Your task to perform on an android device: Search for the best selling book on Amazon. Image 0: 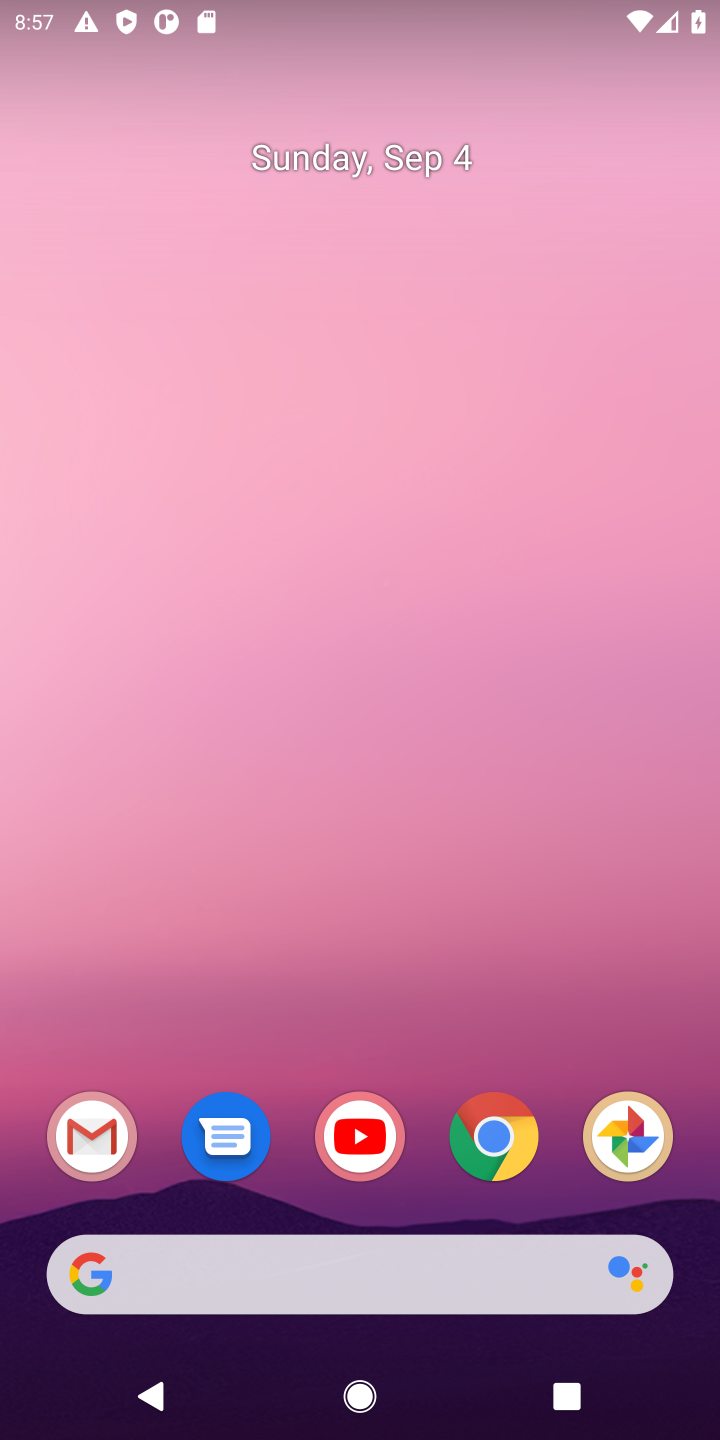
Step 0: drag from (356, 425) to (379, 71)
Your task to perform on an android device: Search for the best selling book on Amazon. Image 1: 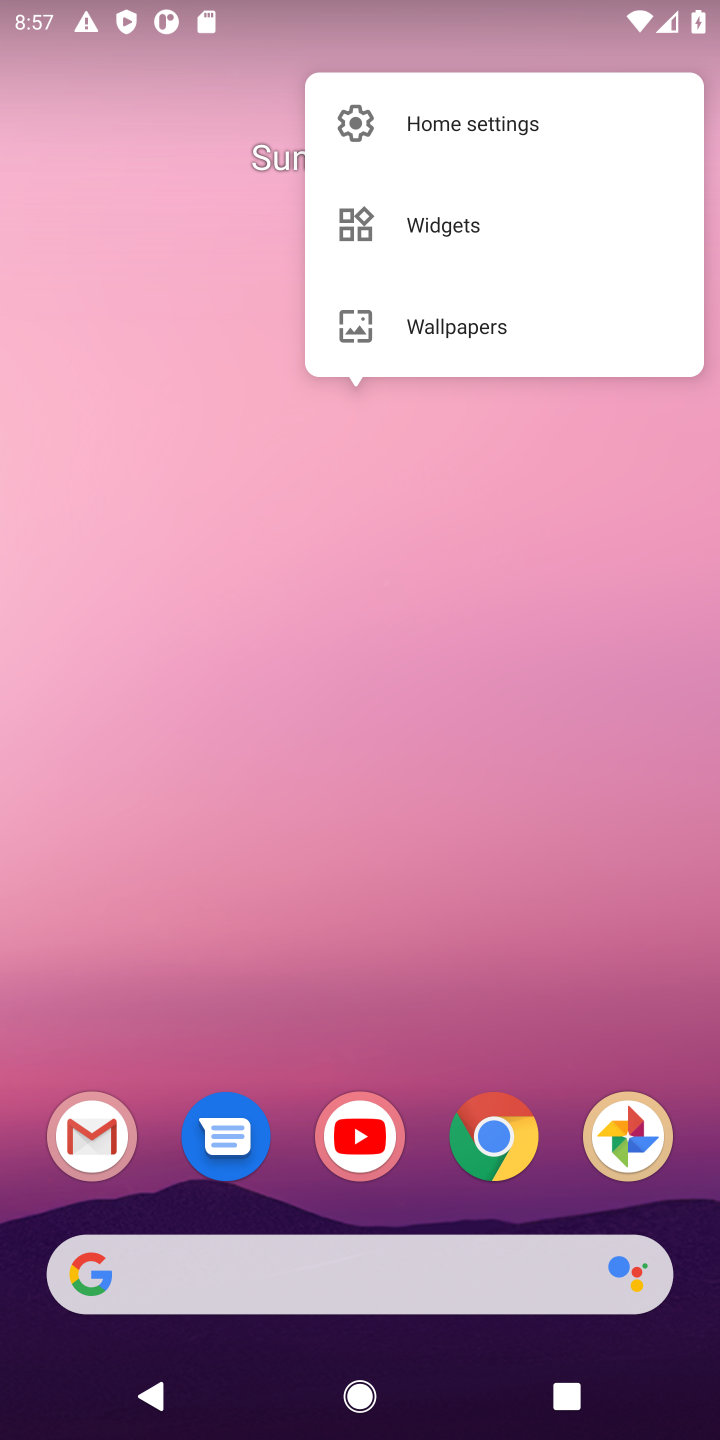
Step 1: click (299, 1193)
Your task to perform on an android device: Search for the best selling book on Amazon. Image 2: 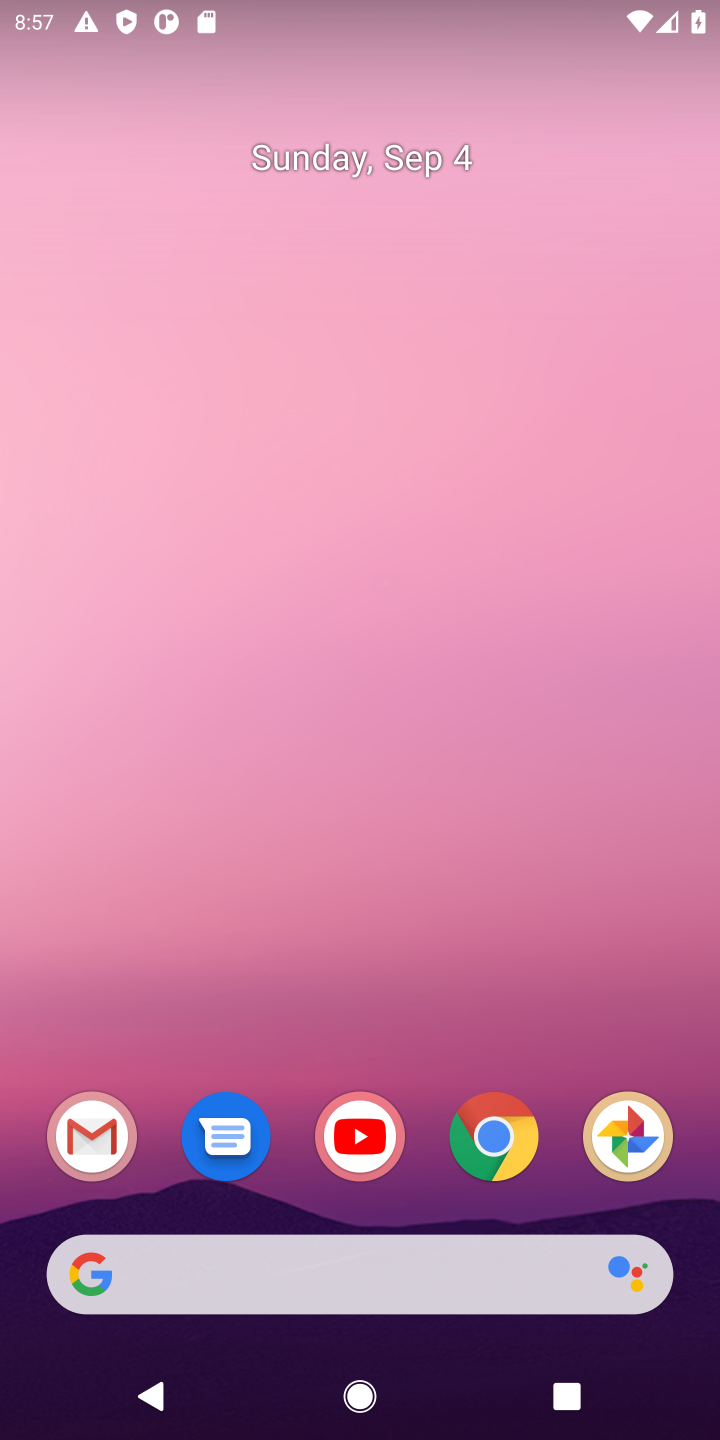
Step 2: drag from (302, 10) to (222, 1)
Your task to perform on an android device: Search for the best selling book on Amazon. Image 3: 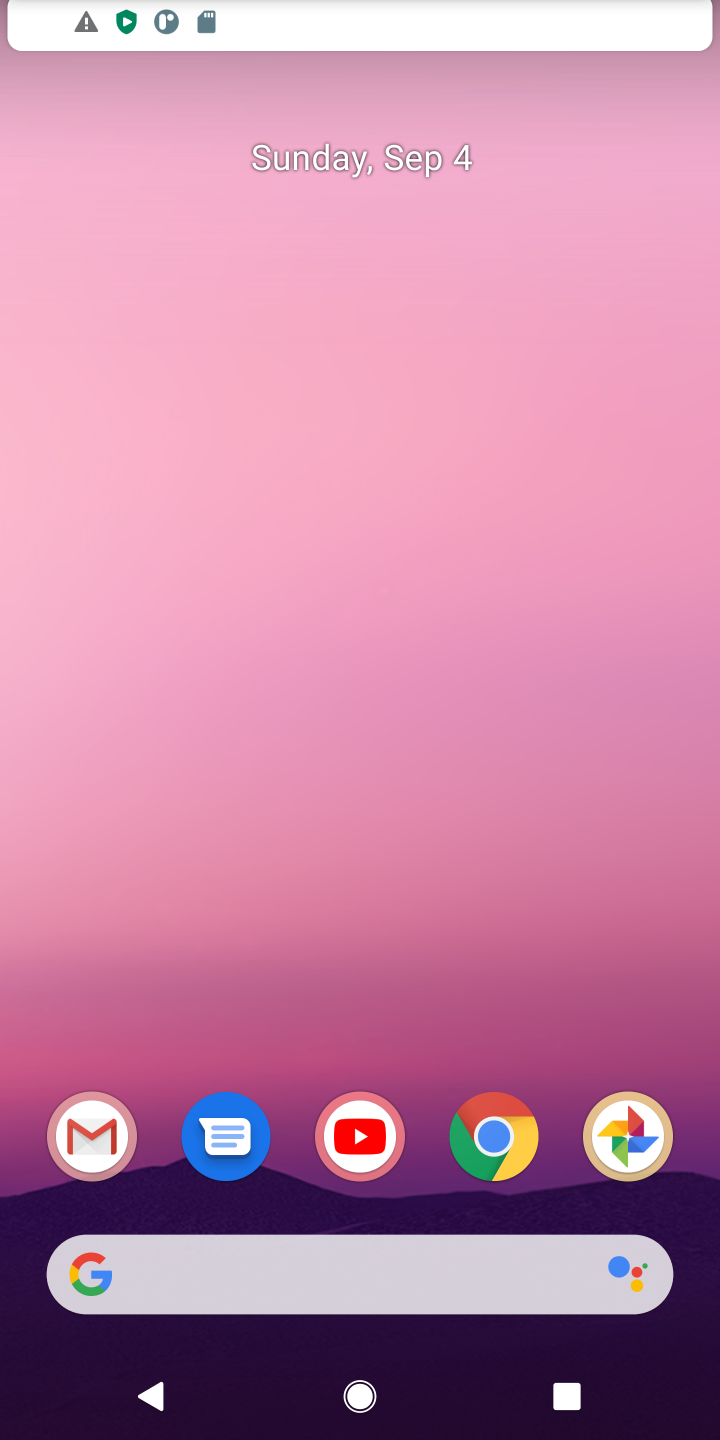
Step 3: drag from (398, 0) to (397, 75)
Your task to perform on an android device: Search for the best selling book on Amazon. Image 4: 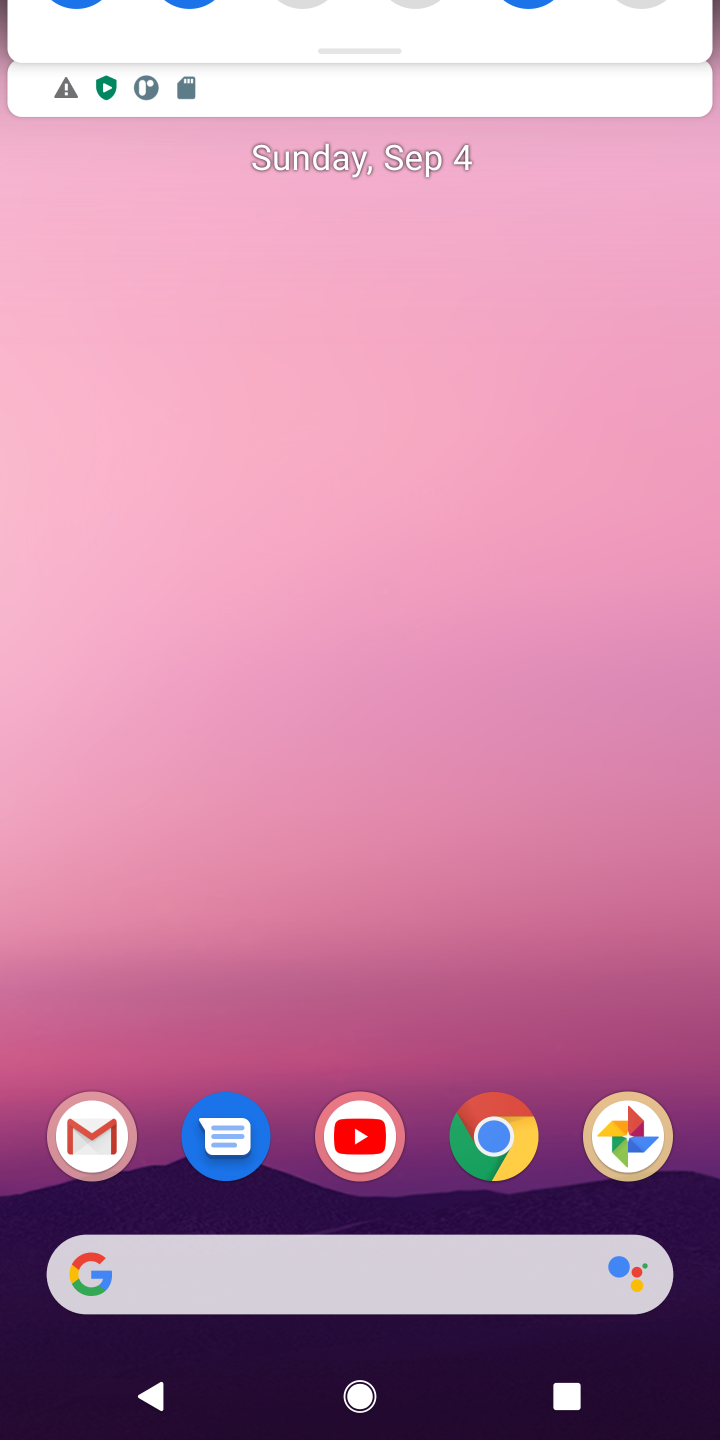
Step 4: click (345, 161)
Your task to perform on an android device: Search for the best selling book on Amazon. Image 5: 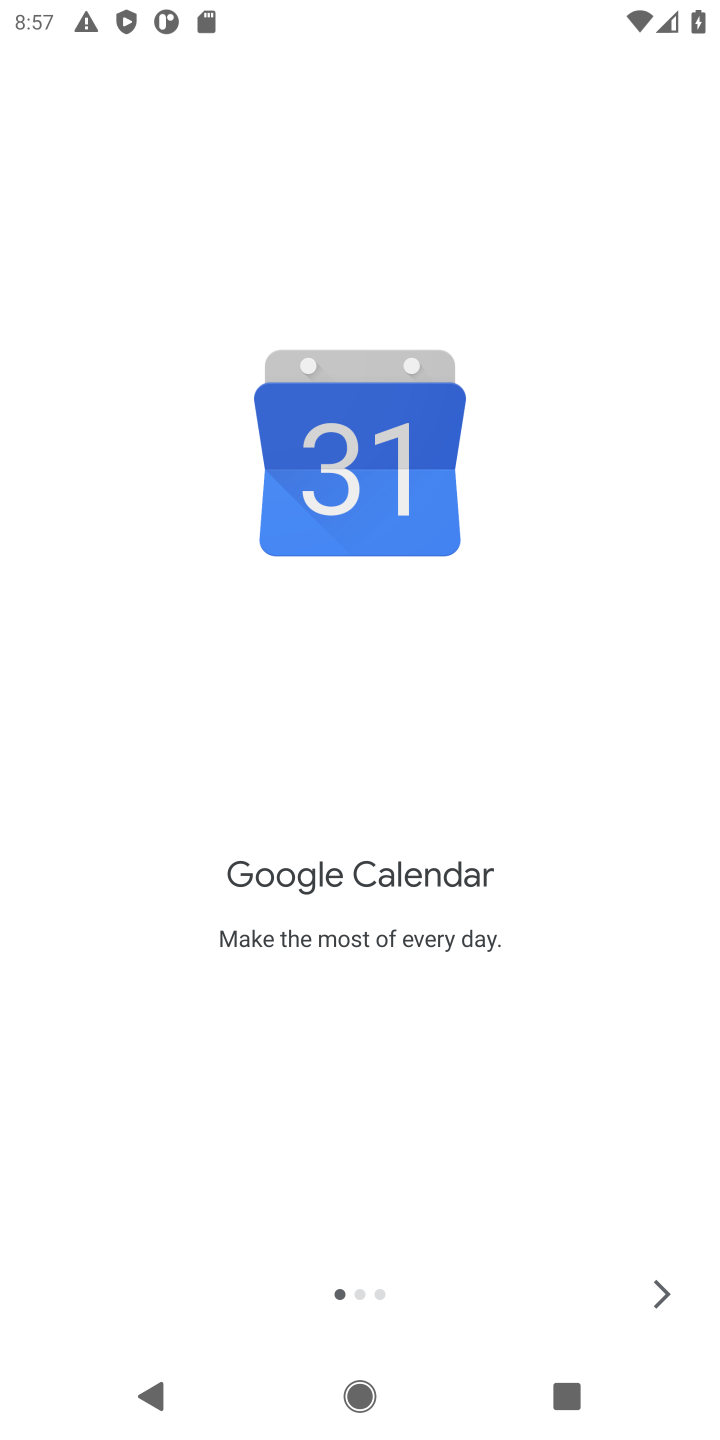
Step 5: drag from (425, 1150) to (459, 1092)
Your task to perform on an android device: Search for the best selling book on Amazon. Image 6: 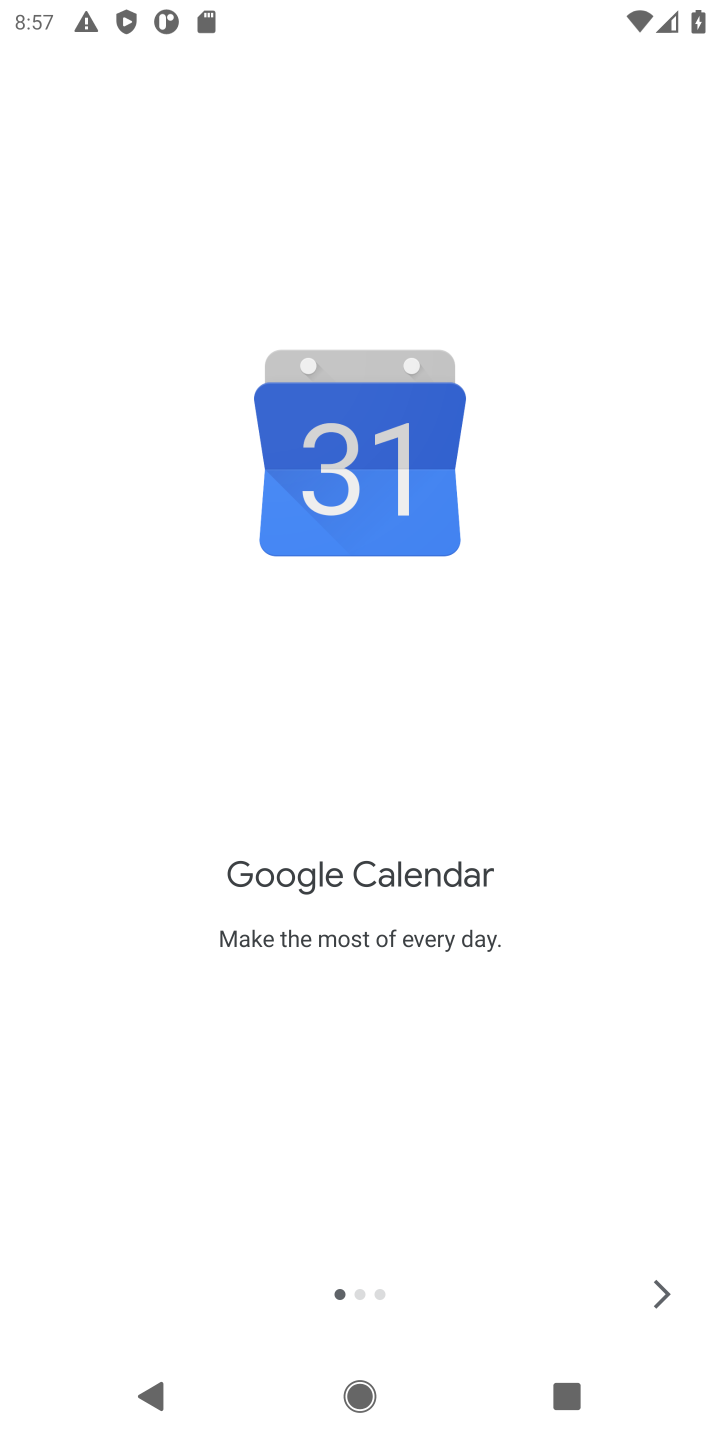
Step 6: press home button
Your task to perform on an android device: Search for the best selling book on Amazon. Image 7: 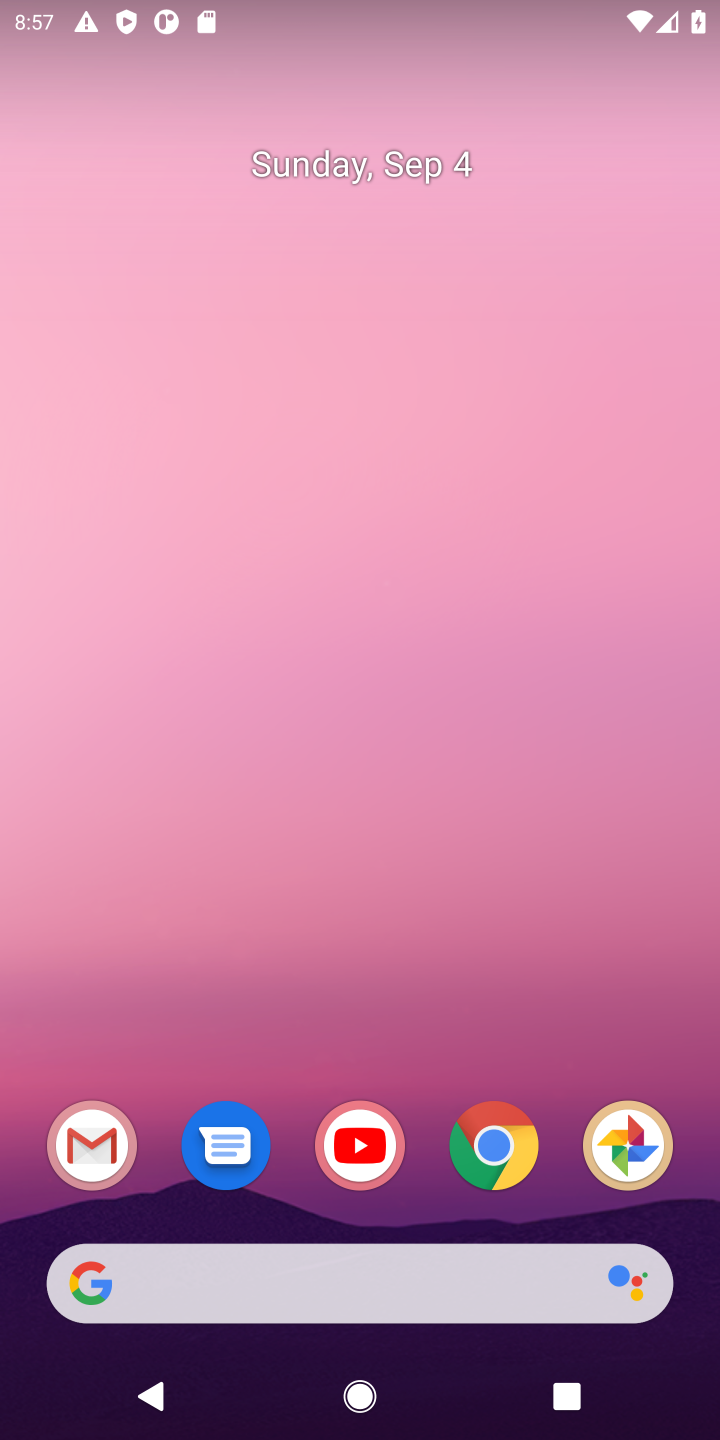
Step 7: drag from (459, 1092) to (648, 1109)
Your task to perform on an android device: Search for the best selling book on Amazon. Image 8: 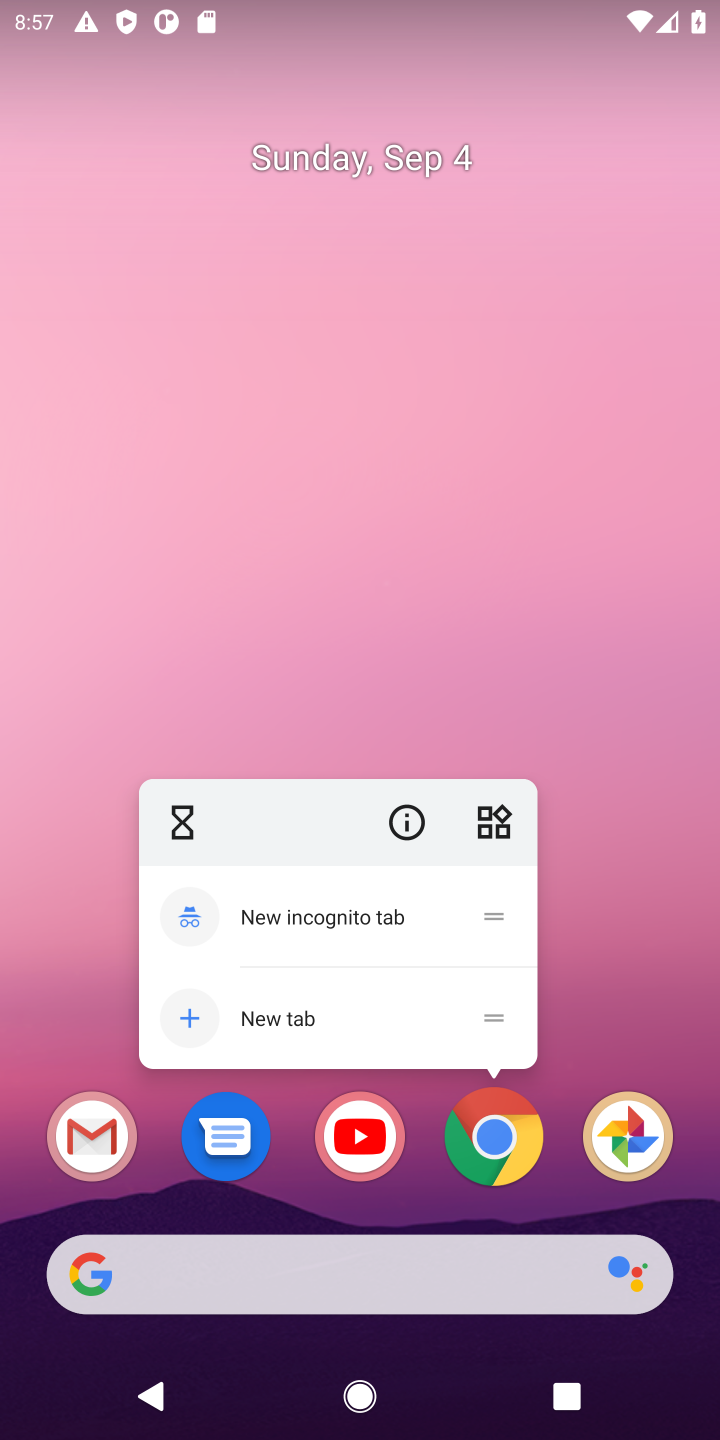
Step 8: click (400, 1214)
Your task to perform on an android device: Search for the best selling book on Amazon. Image 9: 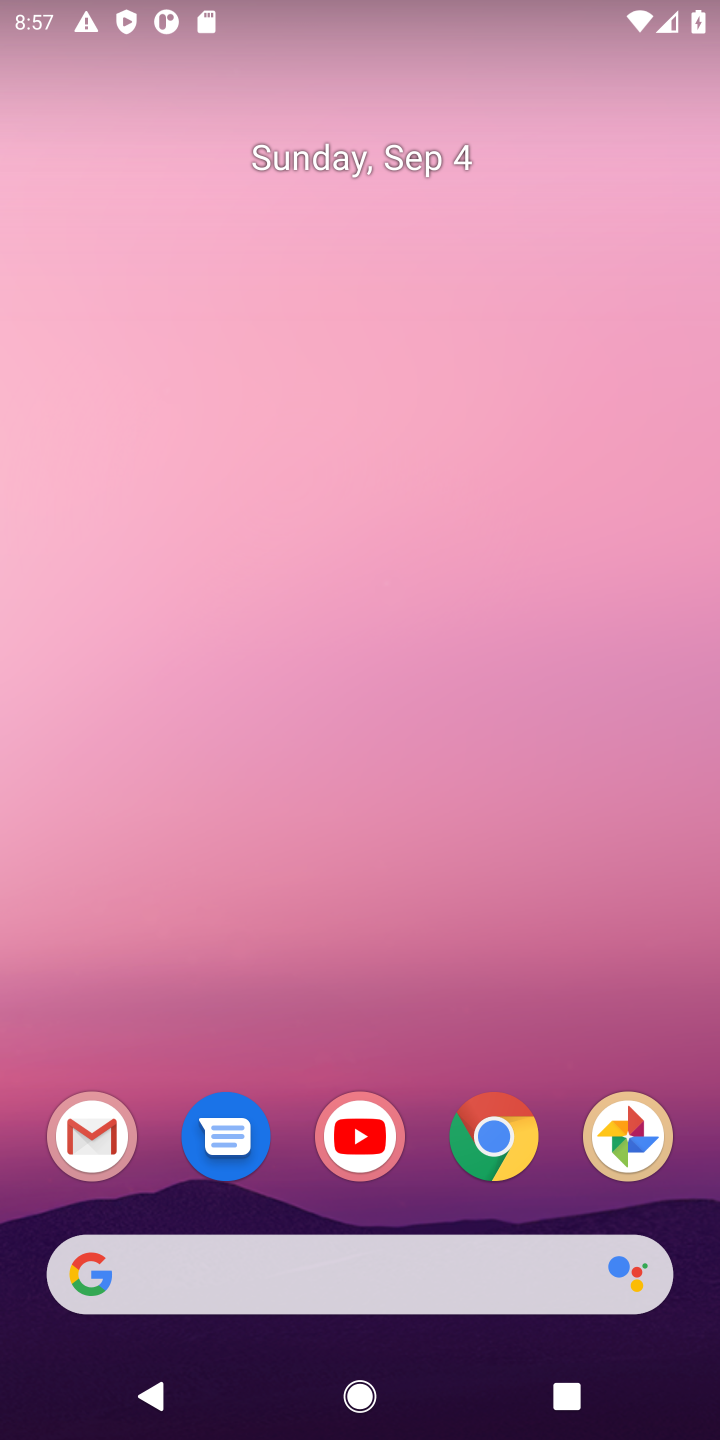
Step 9: click (341, 312)
Your task to perform on an android device: Search for the best selling book on Amazon. Image 10: 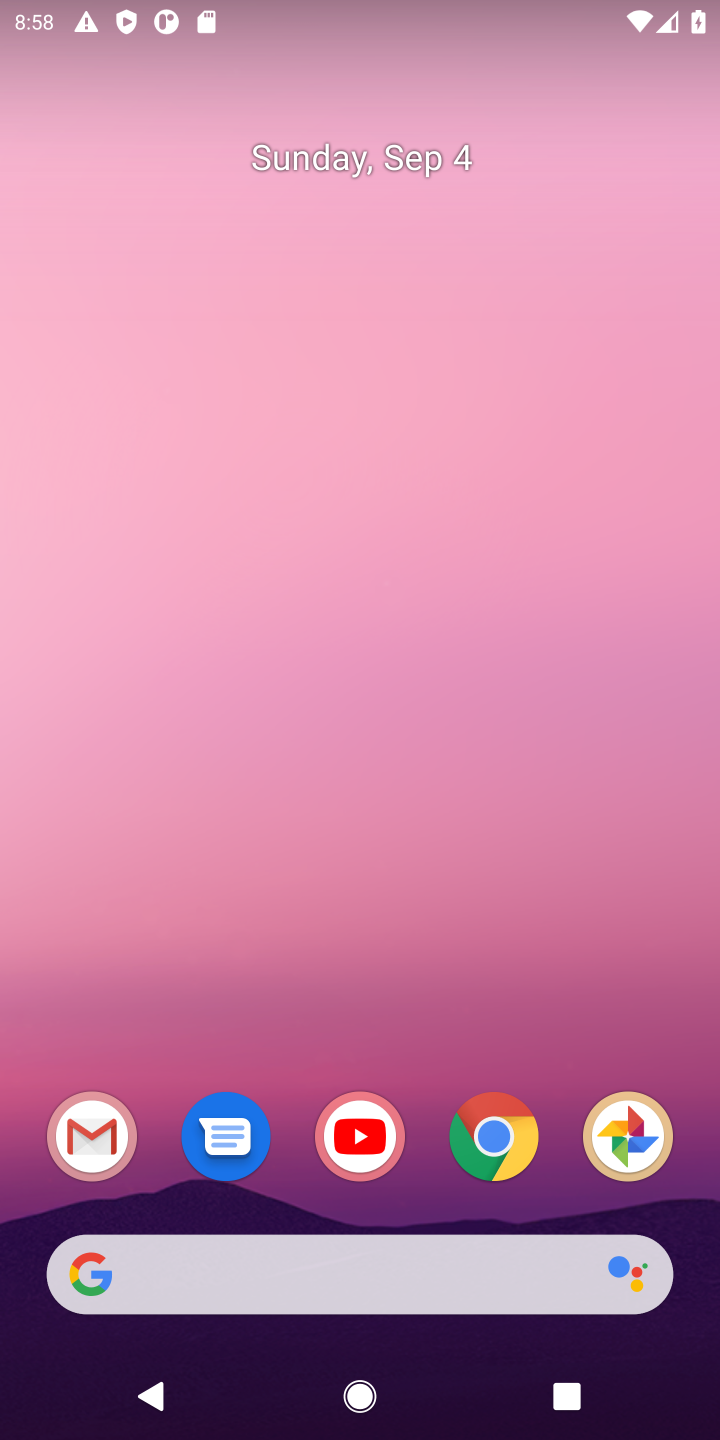
Step 10: click (454, 431)
Your task to perform on an android device: Search for the best selling book on Amazon. Image 11: 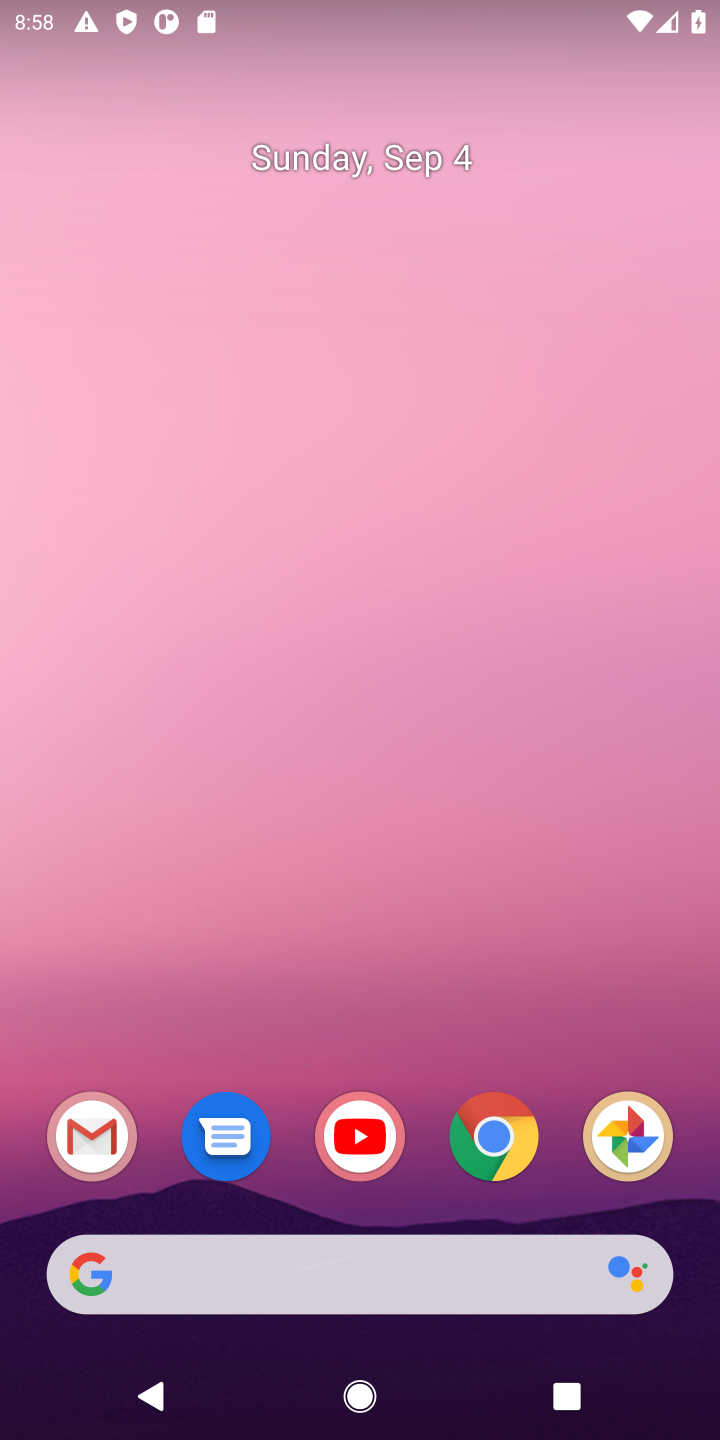
Step 11: click (516, 272)
Your task to perform on an android device: Search for the best selling book on Amazon. Image 12: 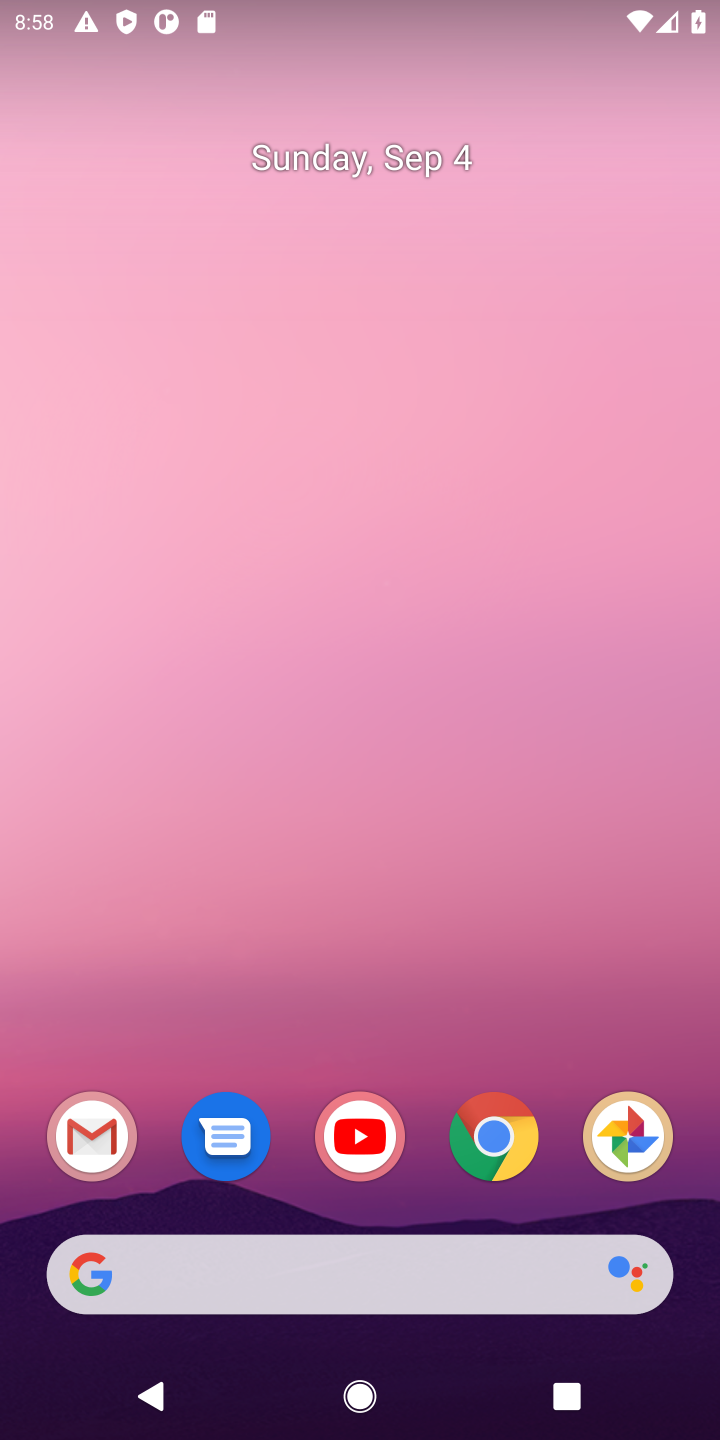
Step 12: click (280, 174)
Your task to perform on an android device: Search for the best selling book on Amazon. Image 13: 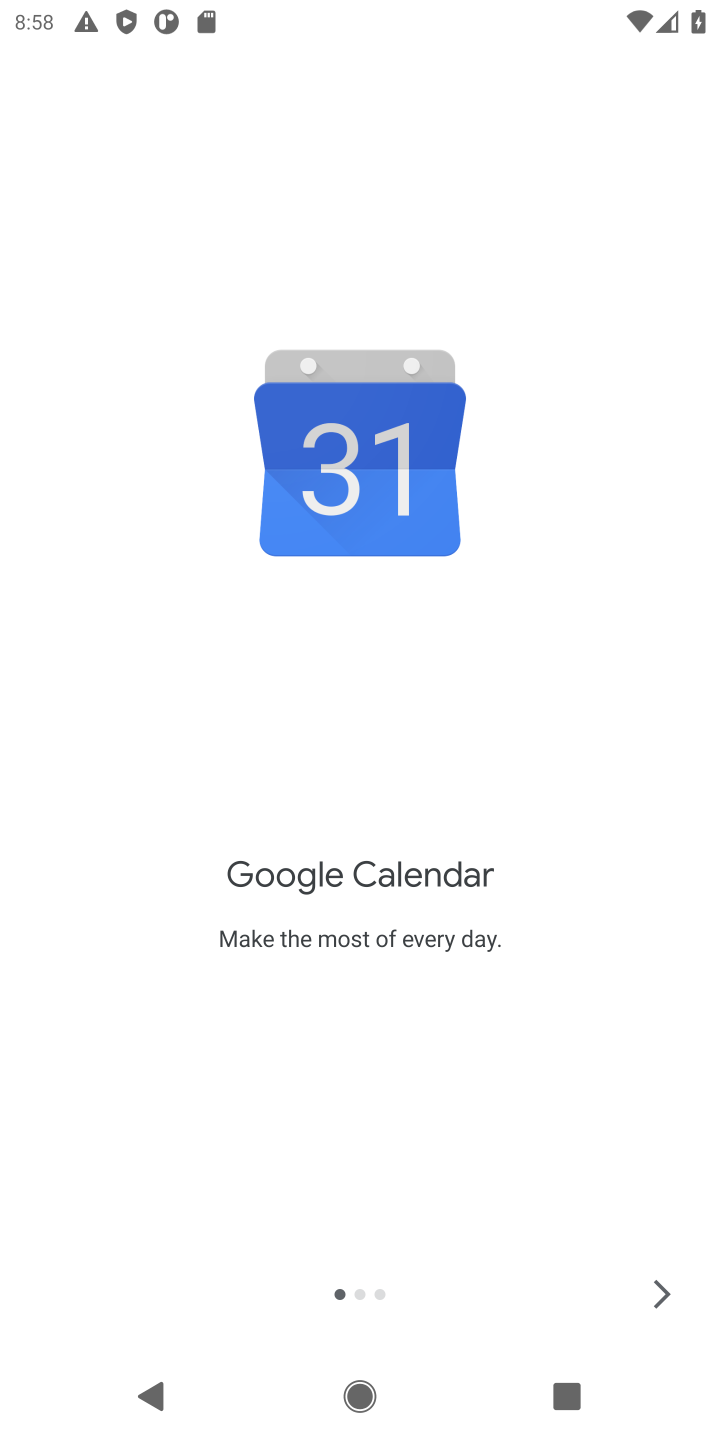
Step 13: press home button
Your task to perform on an android device: Search for the best selling book on Amazon. Image 14: 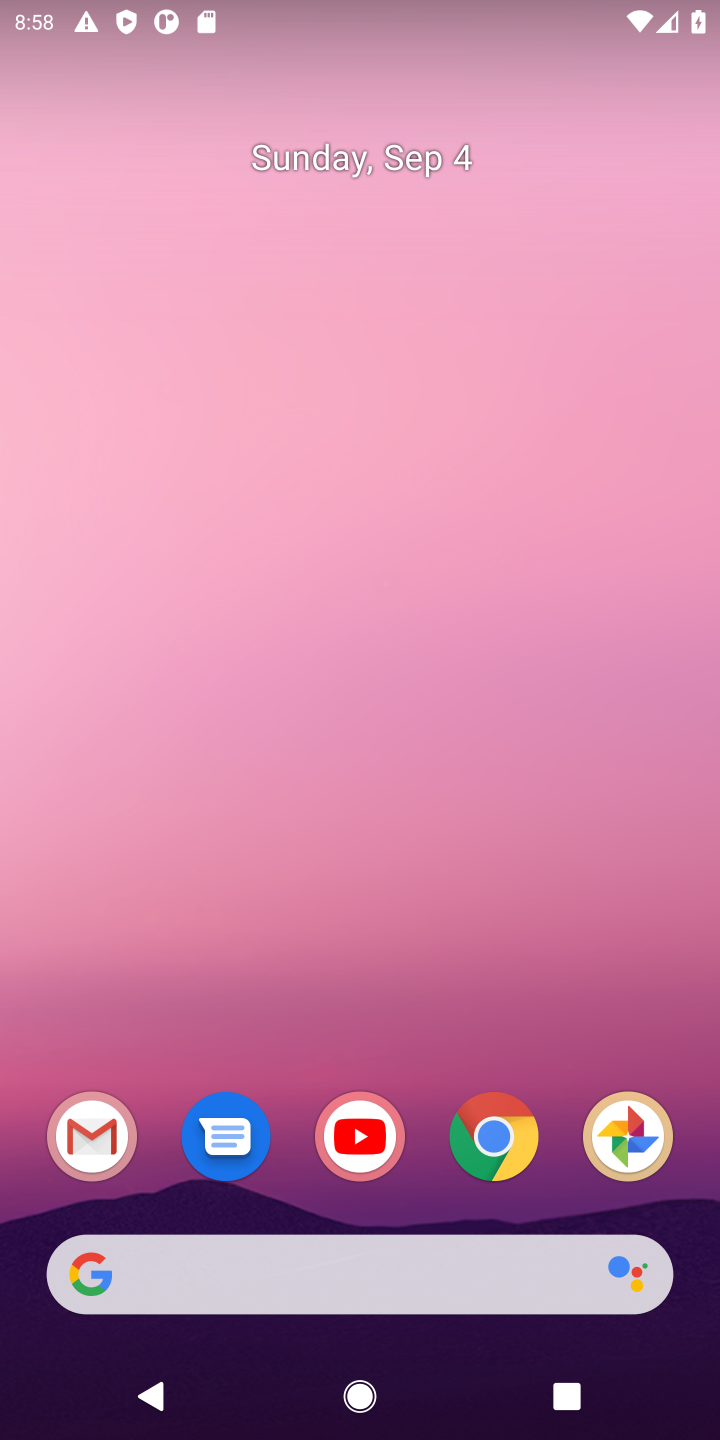
Step 14: click (350, 500)
Your task to perform on an android device: Search for the best selling book on Amazon. Image 15: 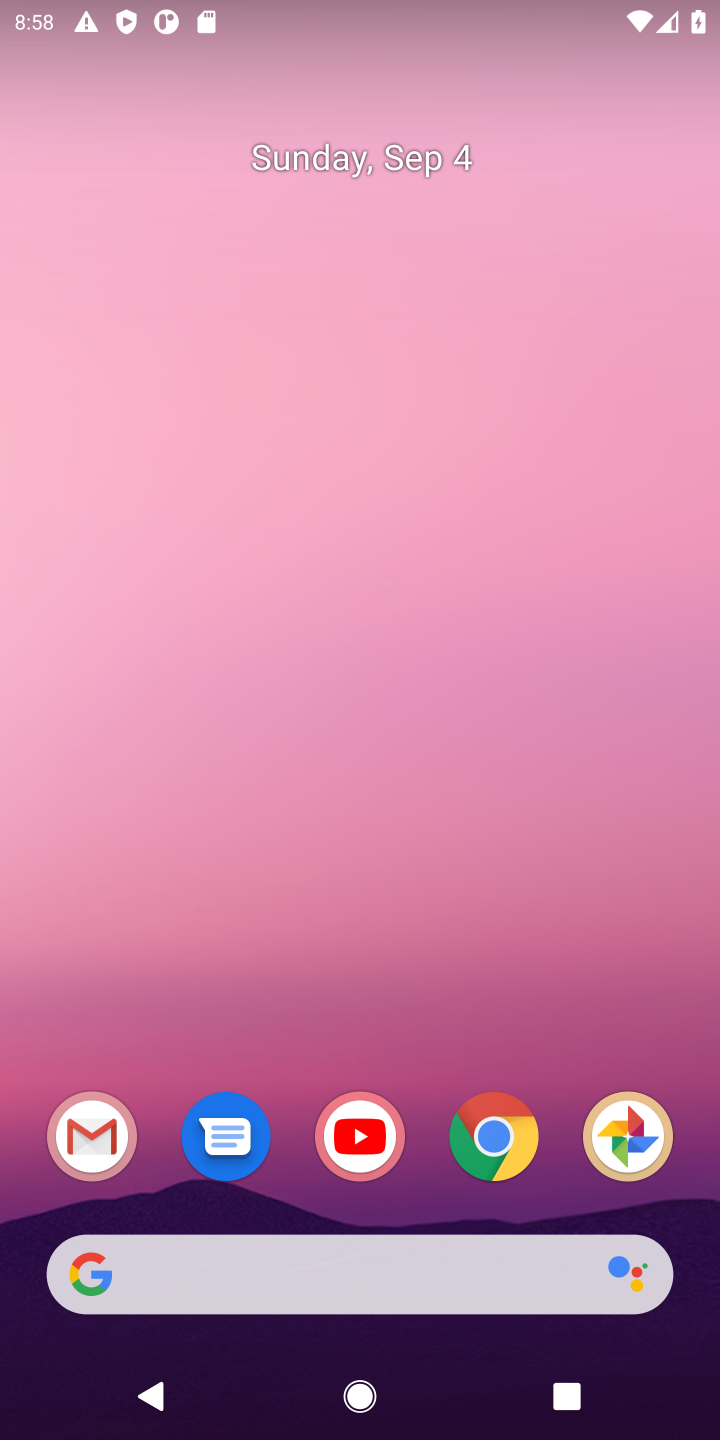
Step 15: click (270, 1276)
Your task to perform on an android device: Search for the best selling book on Amazon. Image 16: 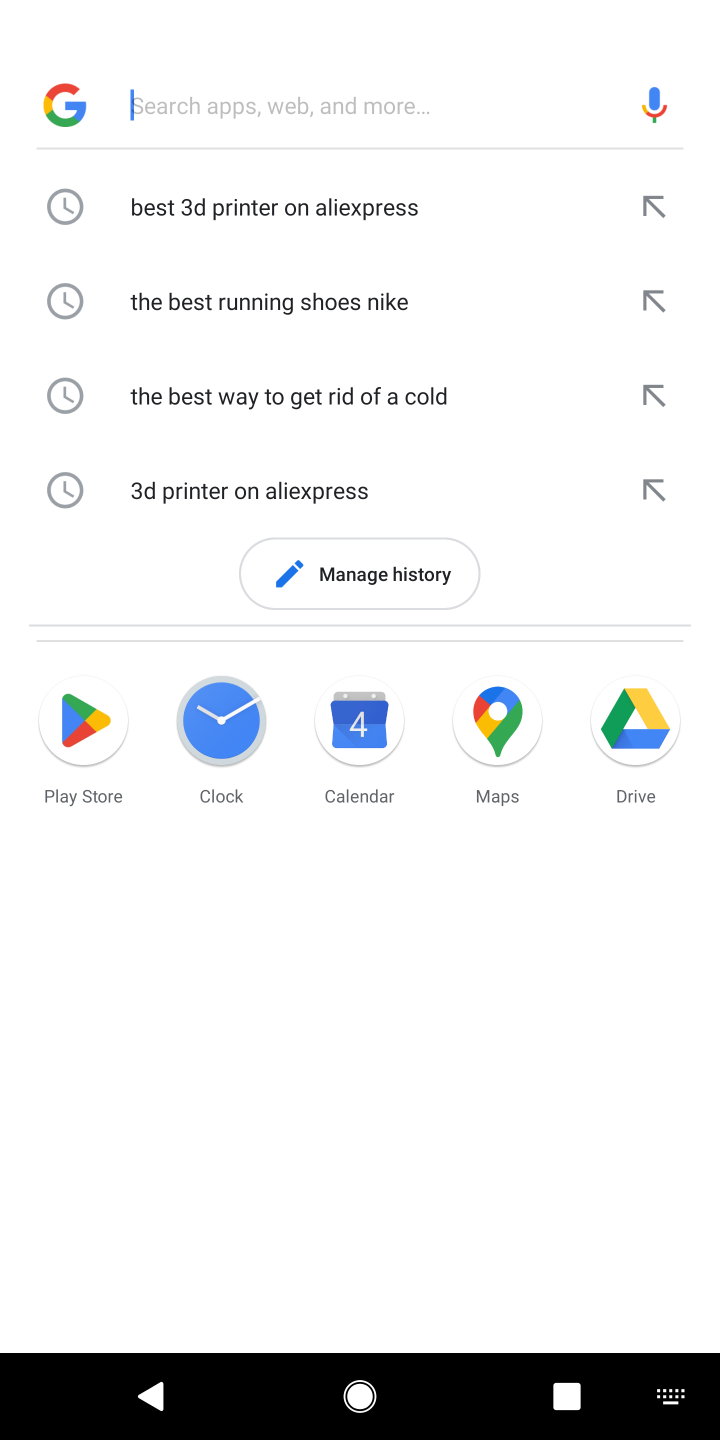
Step 16: type "the best selling book on Amazon"
Your task to perform on an android device: Search for the best selling book on Amazon. Image 17: 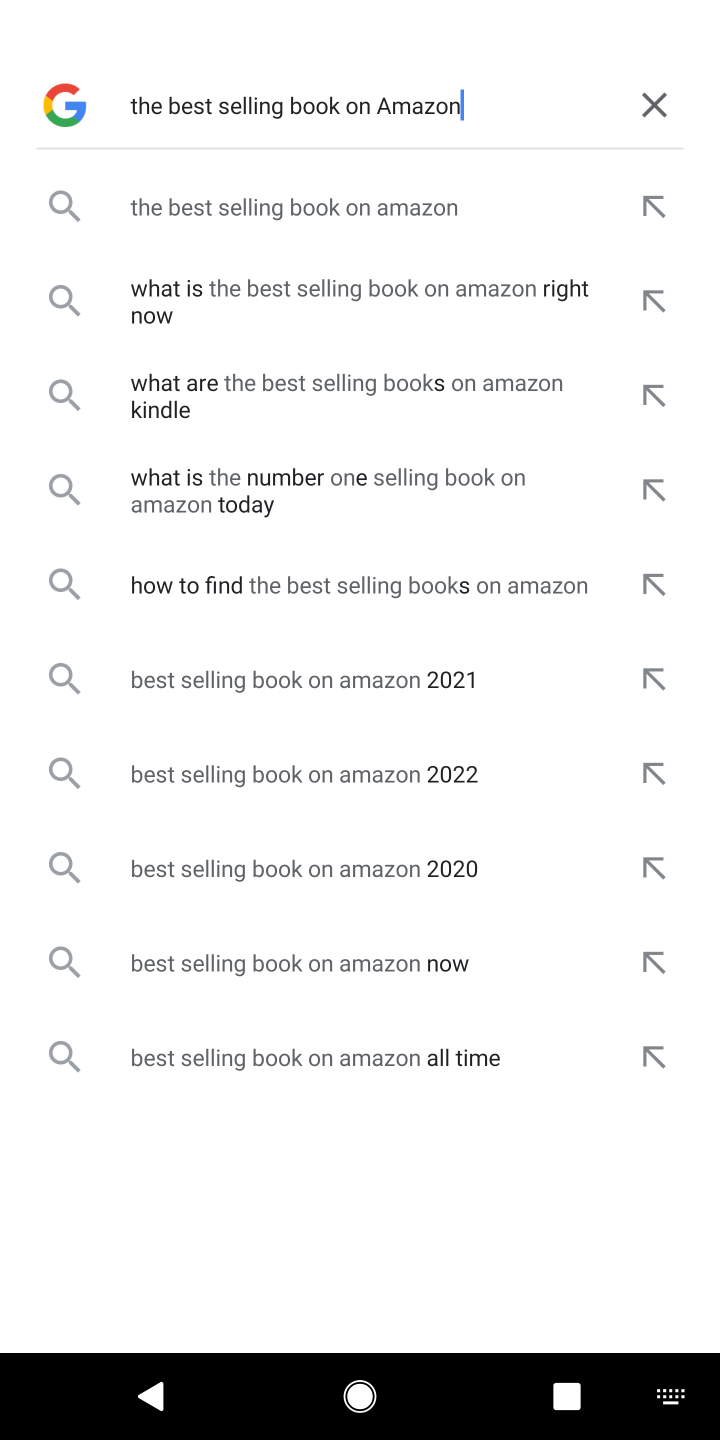
Step 17: click (387, 199)
Your task to perform on an android device: Search for the best selling book on Amazon. Image 18: 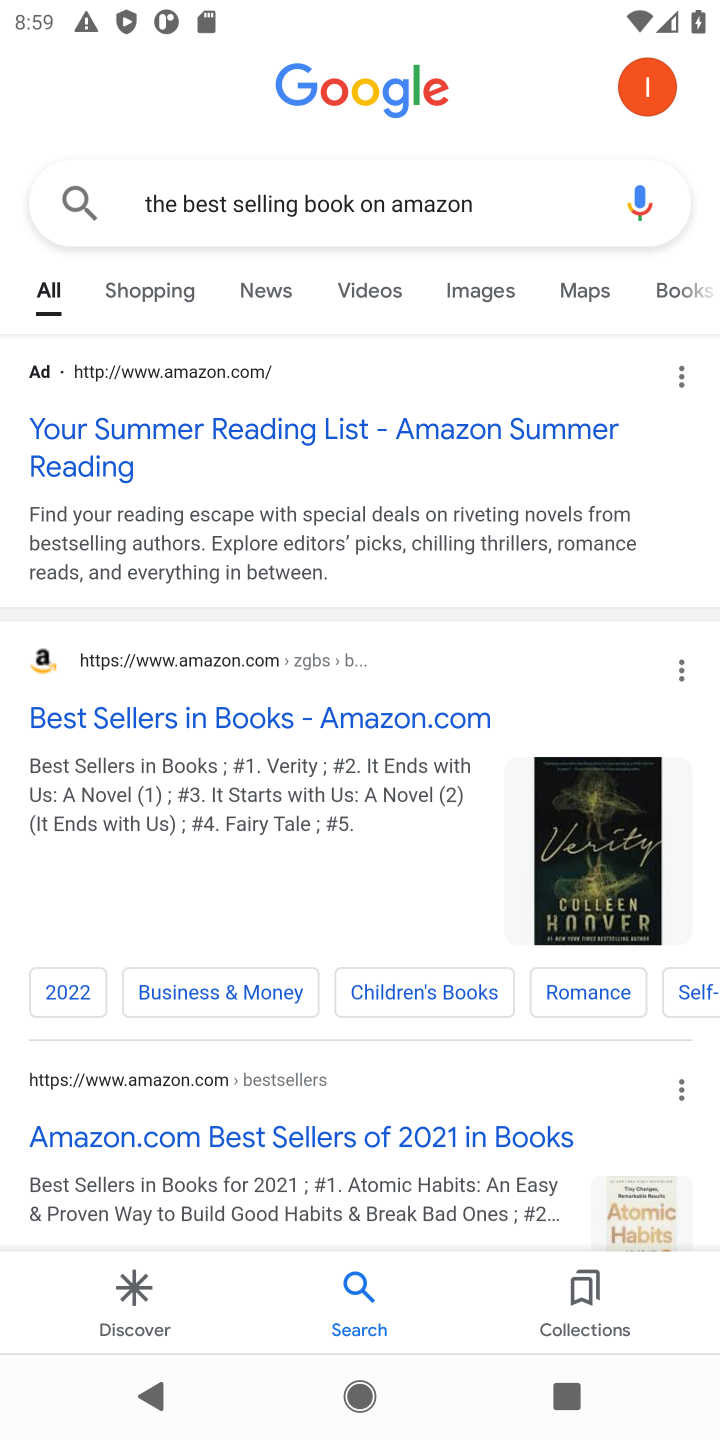
Step 18: task complete